Your task to perform on an android device: Open Google Chrome and open the bookmarks view Image 0: 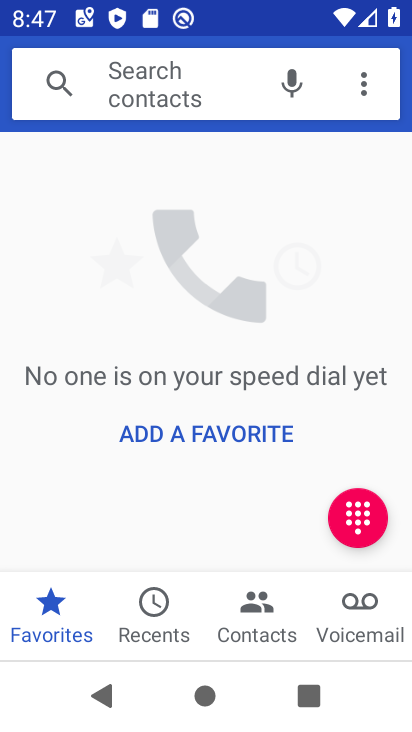
Step 0: press back button
Your task to perform on an android device: Open Google Chrome and open the bookmarks view Image 1: 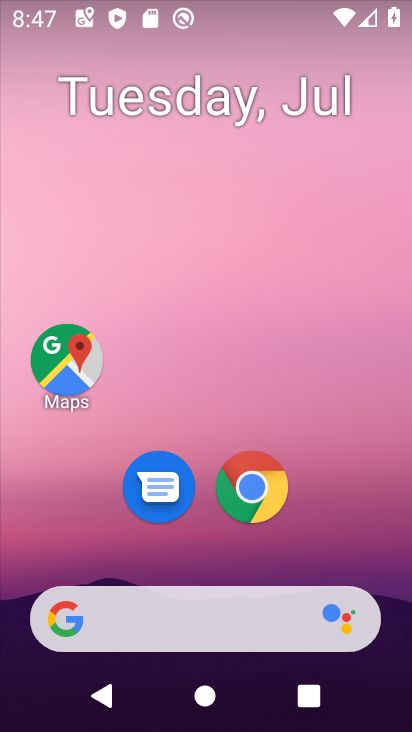
Step 1: click (235, 484)
Your task to perform on an android device: Open Google Chrome and open the bookmarks view Image 2: 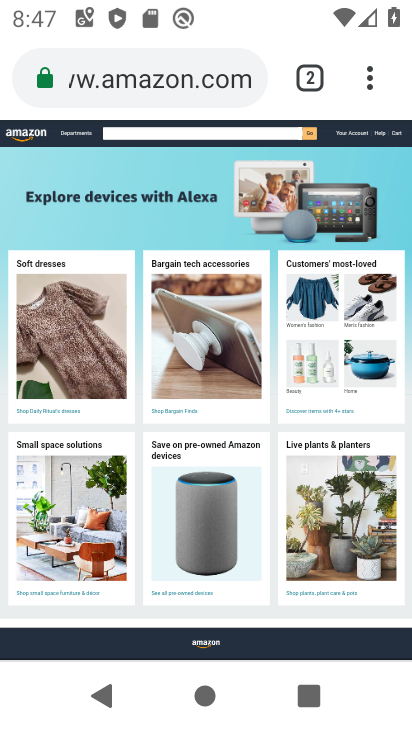
Step 2: task complete